Your task to perform on an android device: Open the Play Movies app and select the watchlist tab. Image 0: 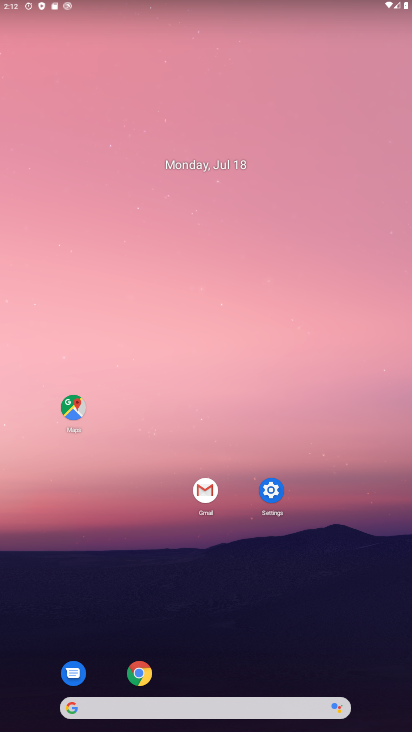
Step 0: drag from (308, 720) to (321, 113)
Your task to perform on an android device: Open the Play Movies app and select the watchlist tab. Image 1: 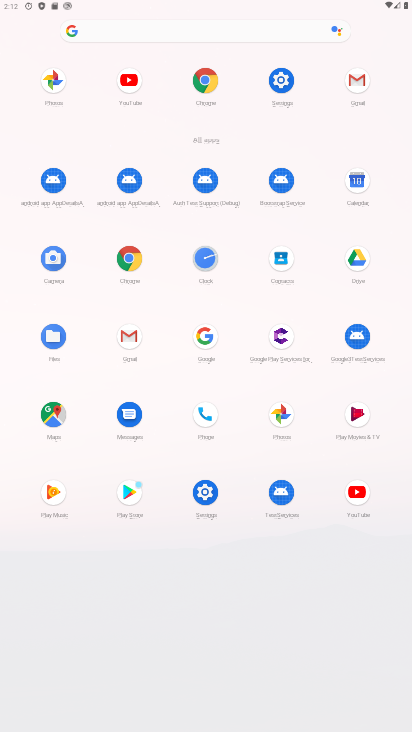
Step 1: click (349, 421)
Your task to perform on an android device: Open the Play Movies app and select the watchlist tab. Image 2: 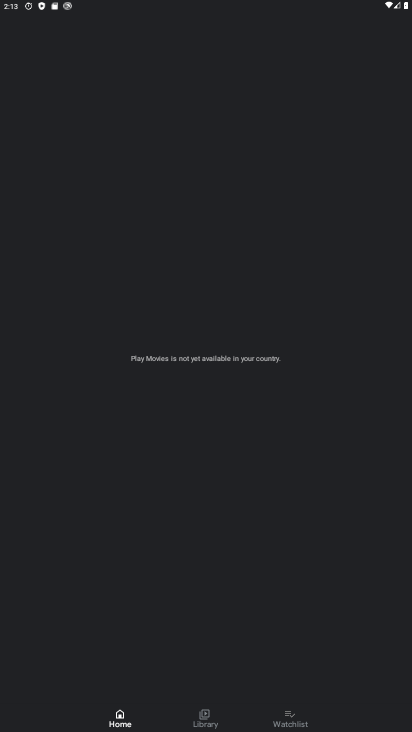
Step 2: click (295, 718)
Your task to perform on an android device: Open the Play Movies app and select the watchlist tab. Image 3: 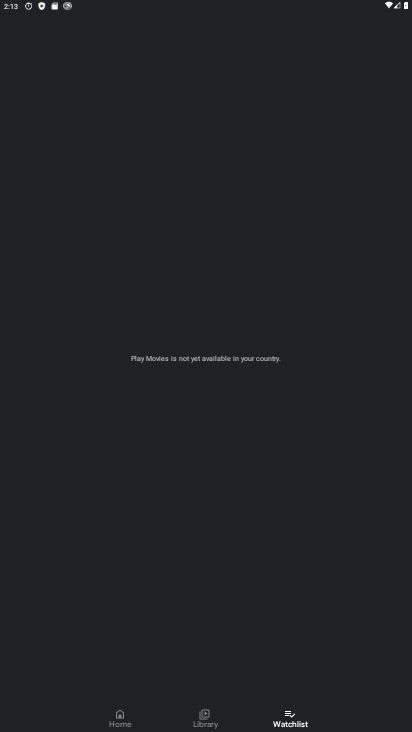
Step 3: task complete